Your task to perform on an android device: Go to accessibility settings Image 0: 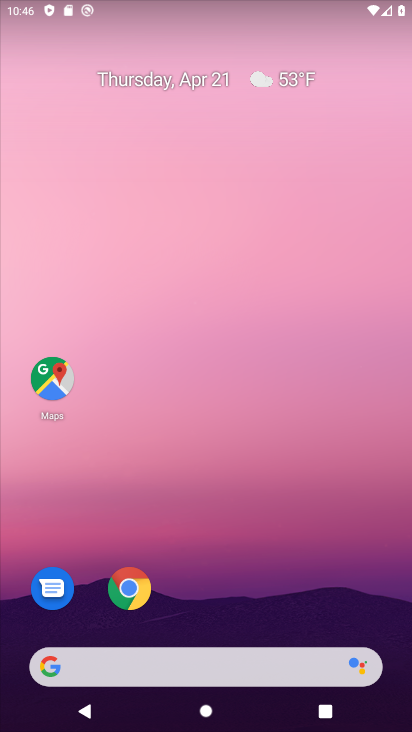
Step 0: drag from (310, 596) to (221, 24)
Your task to perform on an android device: Go to accessibility settings Image 1: 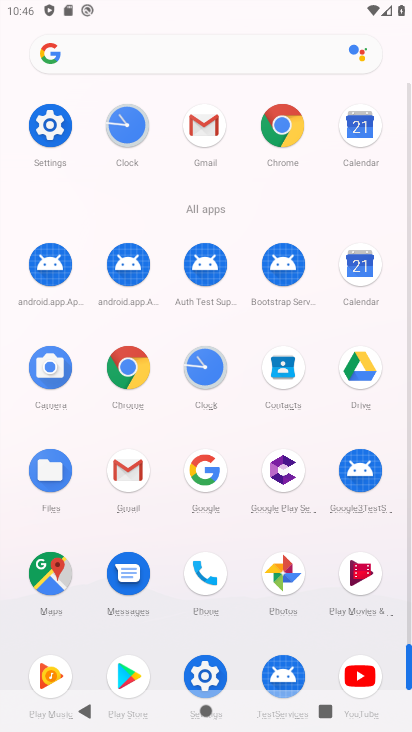
Step 1: click (47, 123)
Your task to perform on an android device: Go to accessibility settings Image 2: 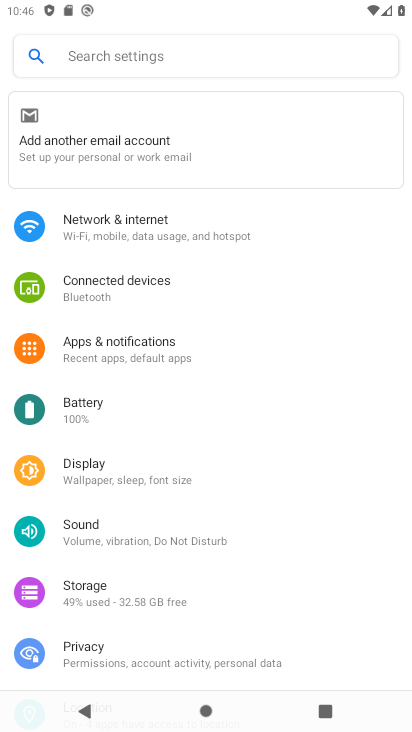
Step 2: drag from (207, 653) to (156, 64)
Your task to perform on an android device: Go to accessibility settings Image 3: 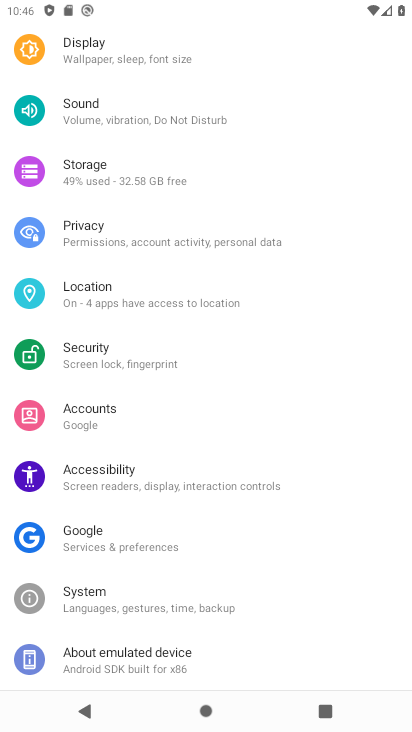
Step 3: click (133, 490)
Your task to perform on an android device: Go to accessibility settings Image 4: 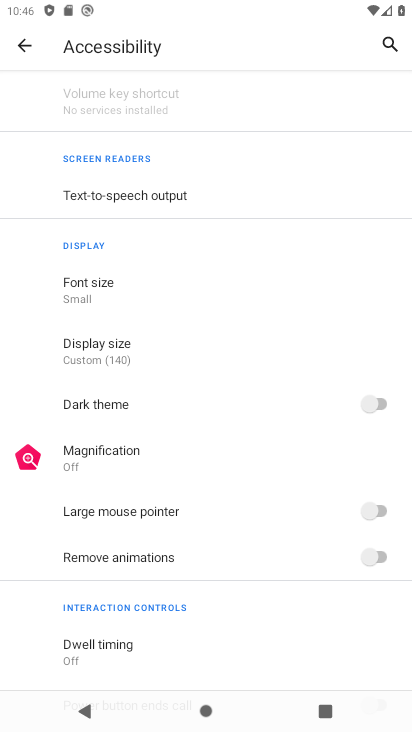
Step 4: task complete